Your task to perform on an android device: Open the map Image 0: 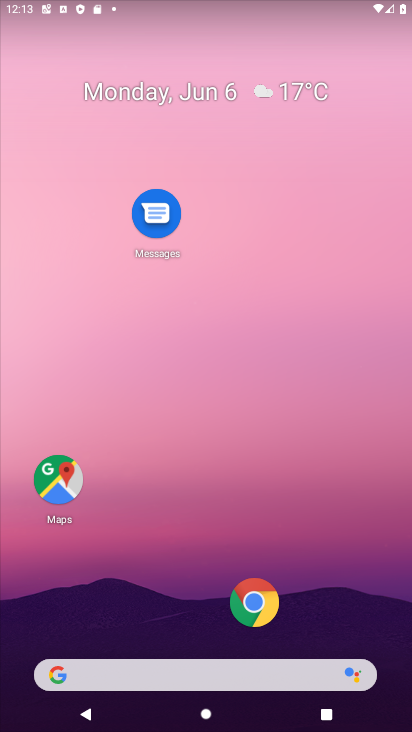
Step 0: click (72, 492)
Your task to perform on an android device: Open the map Image 1: 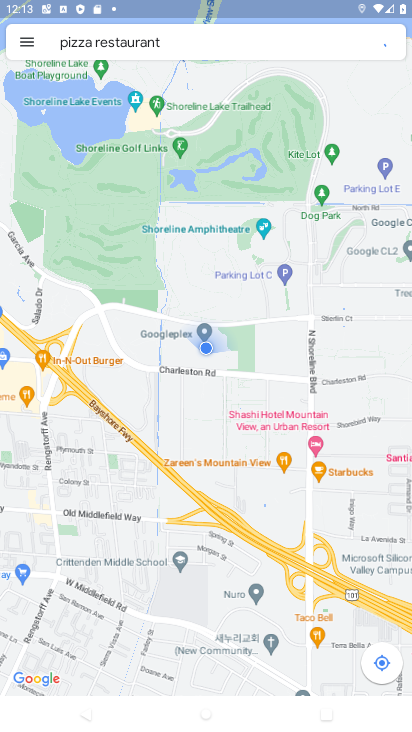
Step 1: task complete